Your task to perform on an android device: Go to Yahoo.com Image 0: 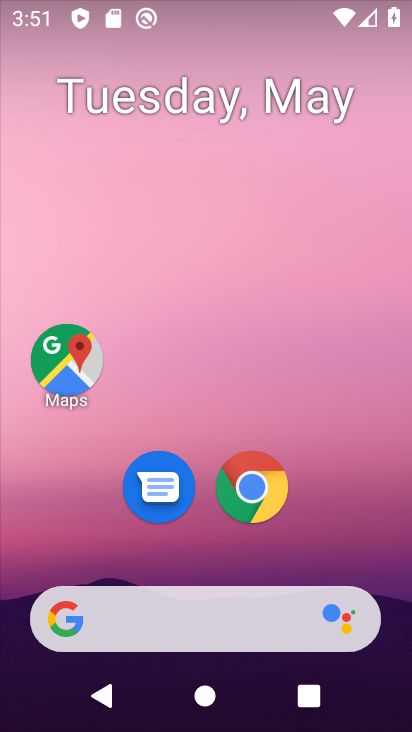
Step 0: click (259, 473)
Your task to perform on an android device: Go to Yahoo.com Image 1: 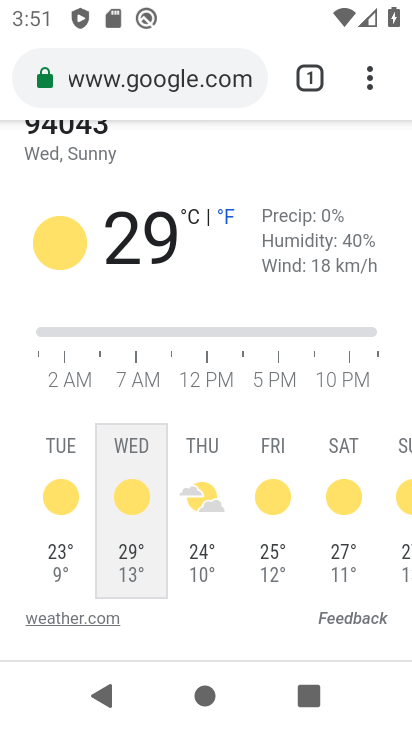
Step 1: drag from (205, 140) to (259, 559)
Your task to perform on an android device: Go to Yahoo.com Image 2: 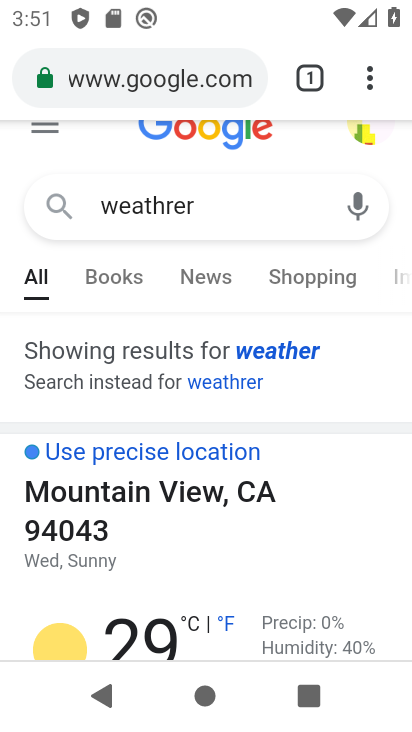
Step 2: click (212, 199)
Your task to perform on an android device: Go to Yahoo.com Image 3: 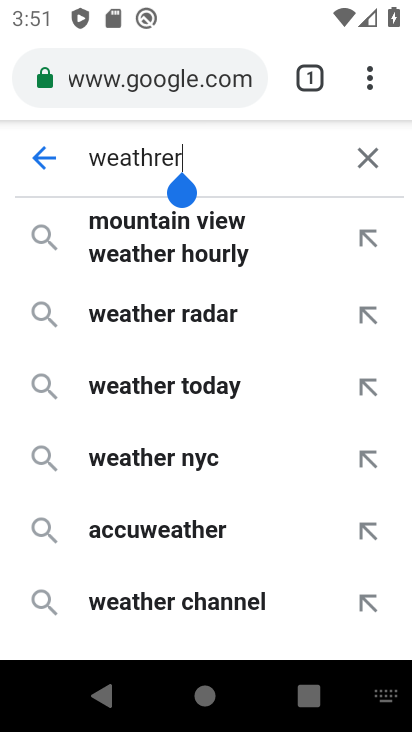
Step 3: click (376, 162)
Your task to perform on an android device: Go to Yahoo.com Image 4: 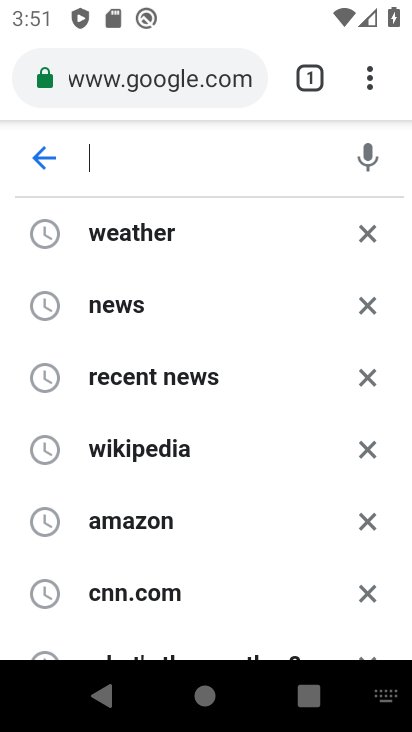
Step 4: type "yahoo.com"
Your task to perform on an android device: Go to Yahoo.com Image 5: 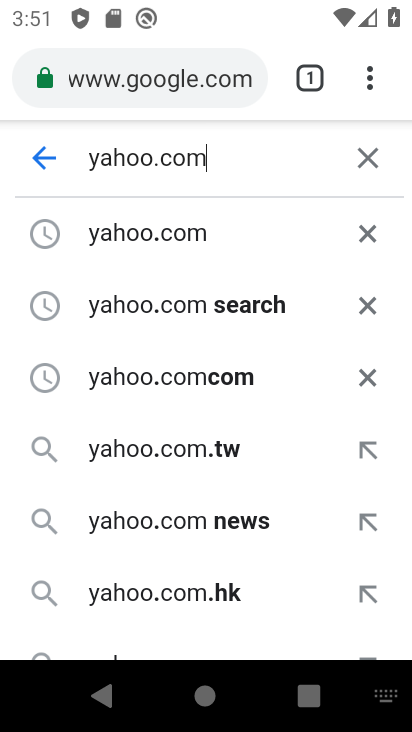
Step 5: press enter
Your task to perform on an android device: Go to Yahoo.com Image 6: 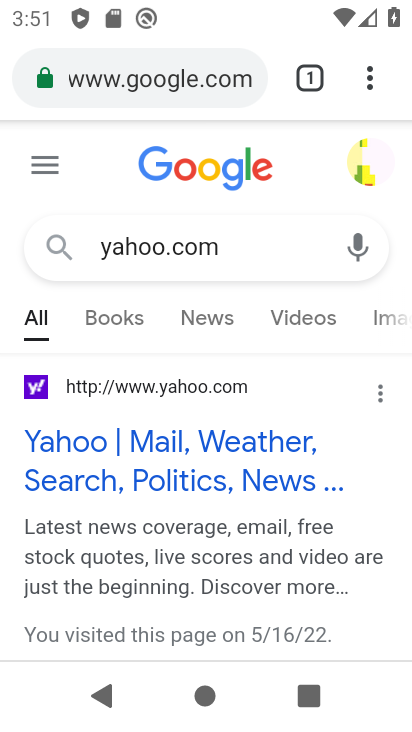
Step 6: click (172, 447)
Your task to perform on an android device: Go to Yahoo.com Image 7: 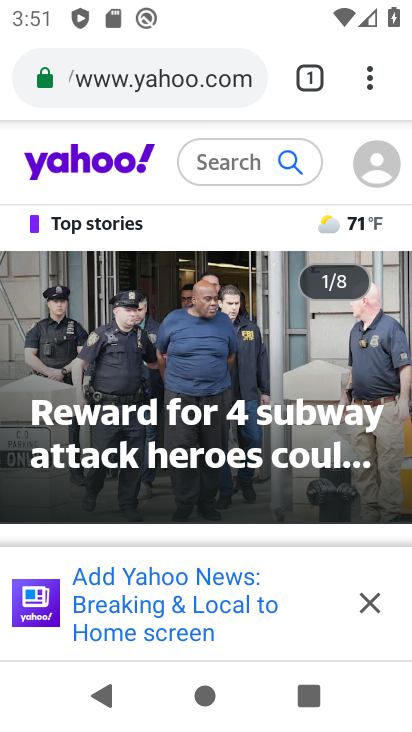
Step 7: task complete